Your task to perform on an android device: Show me the alarms in the clock app Image 0: 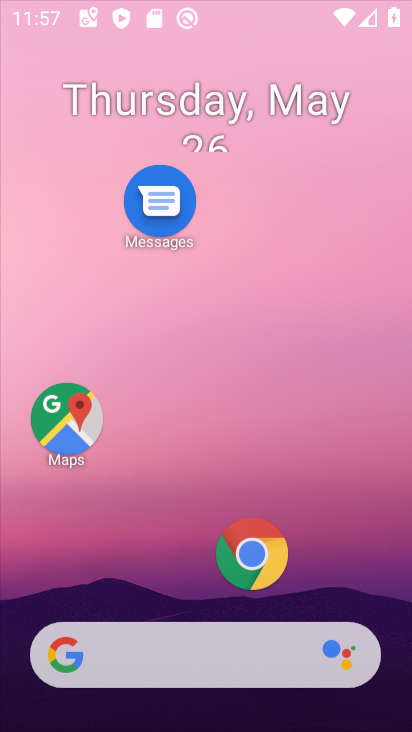
Step 0: press home button
Your task to perform on an android device: Show me the alarms in the clock app Image 1: 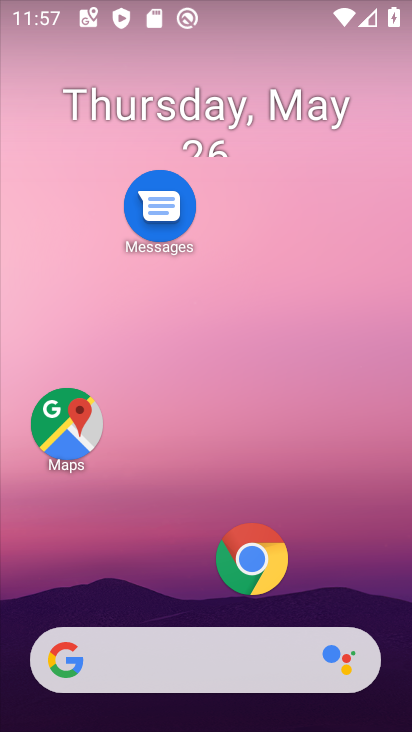
Step 1: drag from (192, 603) to (231, 65)
Your task to perform on an android device: Show me the alarms in the clock app Image 2: 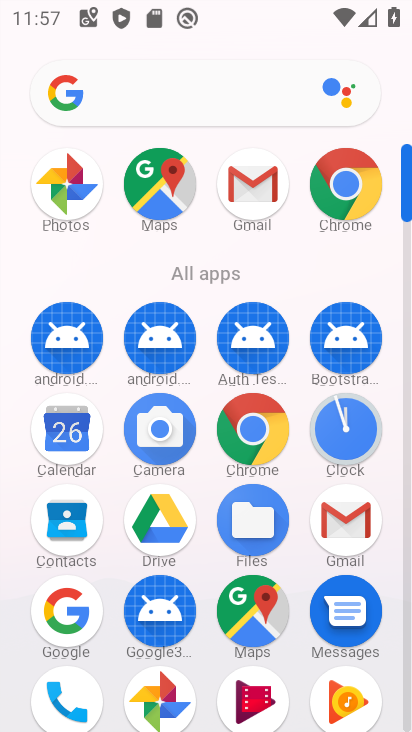
Step 2: click (344, 422)
Your task to perform on an android device: Show me the alarms in the clock app Image 3: 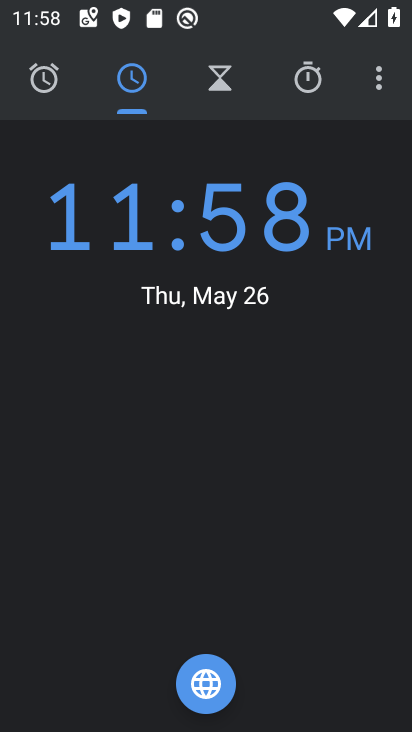
Step 3: click (38, 71)
Your task to perform on an android device: Show me the alarms in the clock app Image 4: 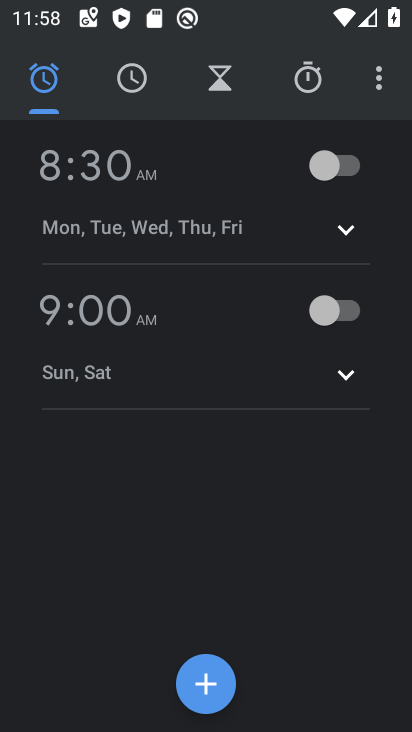
Step 4: task complete